Your task to perform on an android device: Open maps Image 0: 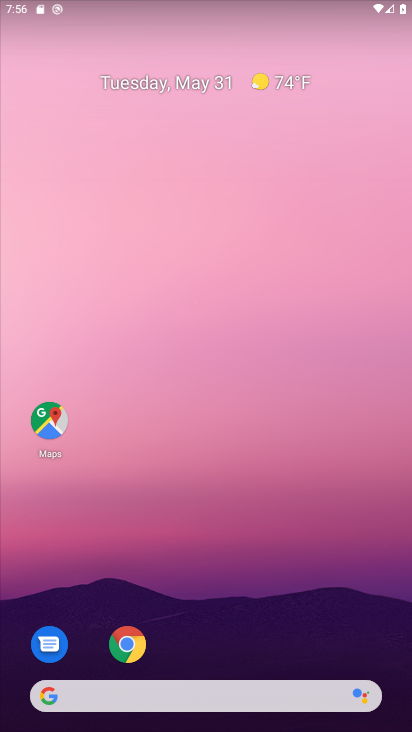
Step 0: press home button
Your task to perform on an android device: Open maps Image 1: 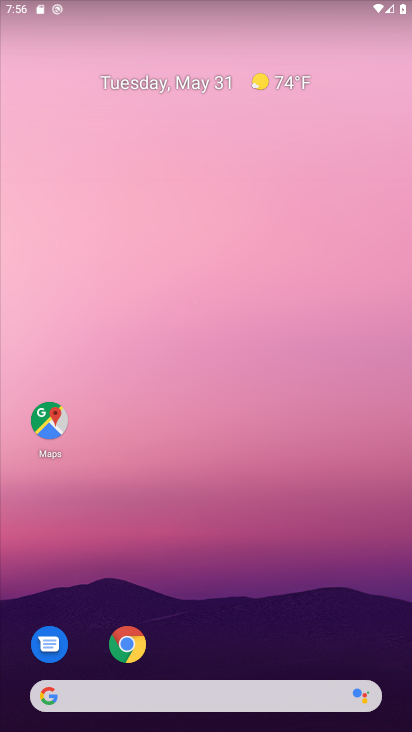
Step 1: click (50, 412)
Your task to perform on an android device: Open maps Image 2: 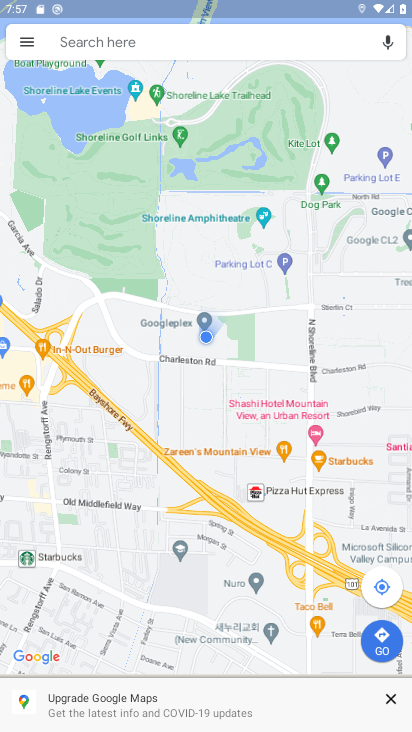
Step 2: task complete